Your task to perform on an android device: Go to CNN.com Image 0: 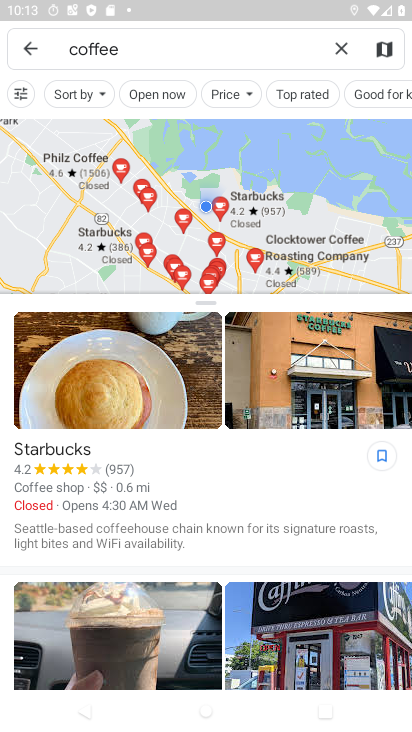
Step 0: press home button
Your task to perform on an android device: Go to CNN.com Image 1: 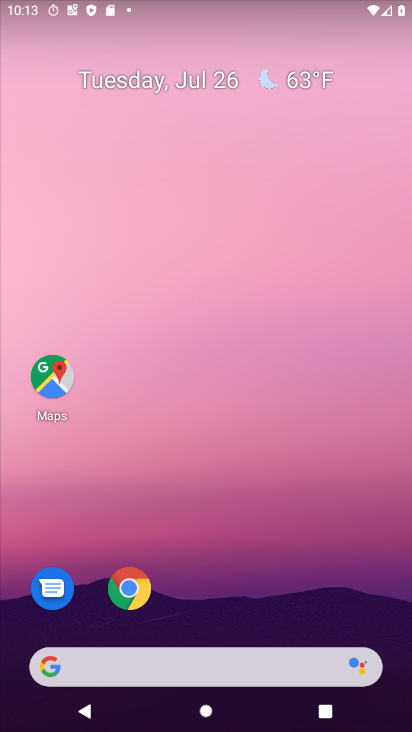
Step 1: click (123, 584)
Your task to perform on an android device: Go to CNN.com Image 2: 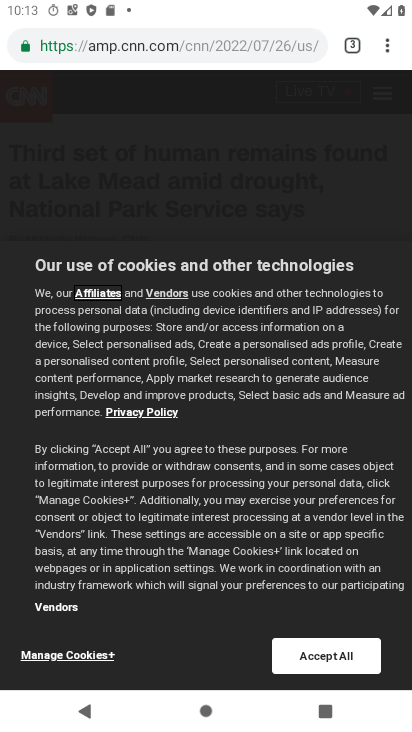
Step 2: task complete